Your task to perform on an android device: Open the Play Movies app and select the watchlist tab. Image 0: 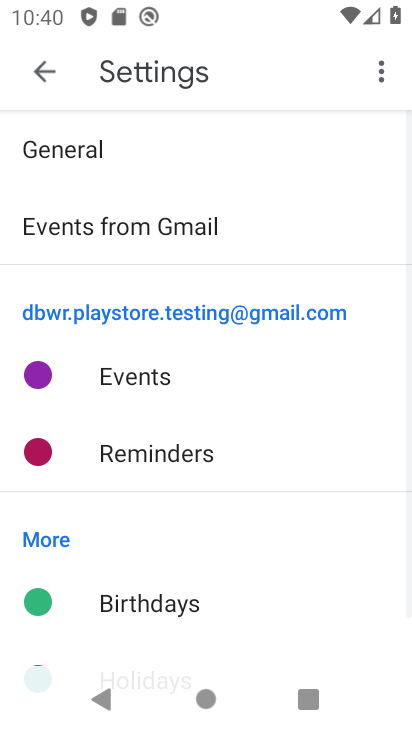
Step 0: press home button
Your task to perform on an android device: Open the Play Movies app and select the watchlist tab. Image 1: 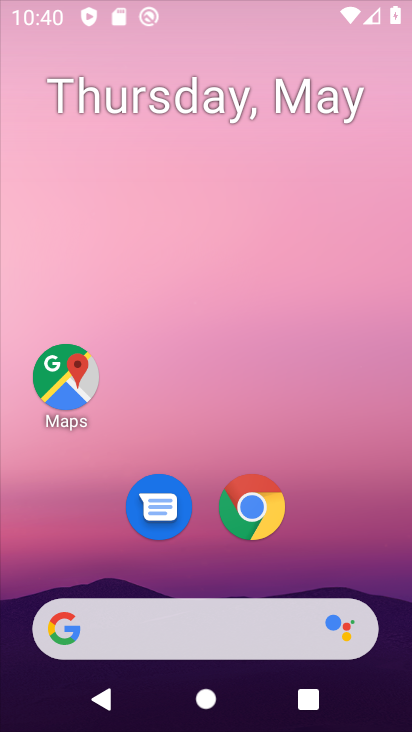
Step 1: drag from (242, 616) to (296, 259)
Your task to perform on an android device: Open the Play Movies app and select the watchlist tab. Image 2: 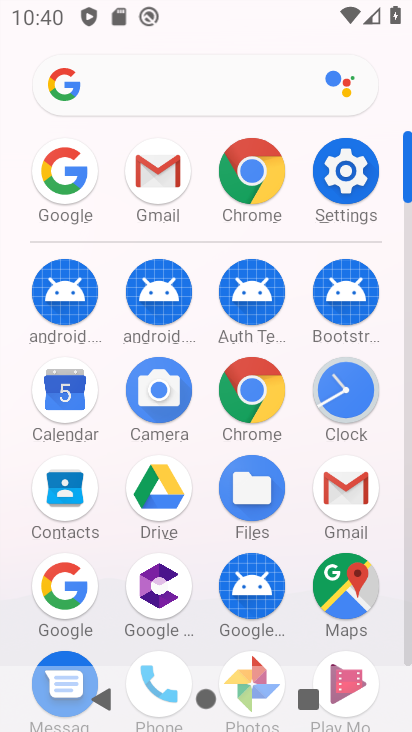
Step 2: drag from (320, 331) to (356, 104)
Your task to perform on an android device: Open the Play Movies app and select the watchlist tab. Image 3: 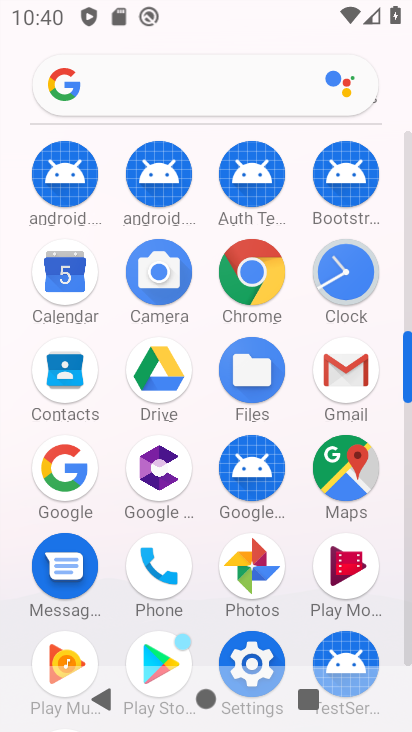
Step 3: click (349, 577)
Your task to perform on an android device: Open the Play Movies app and select the watchlist tab. Image 4: 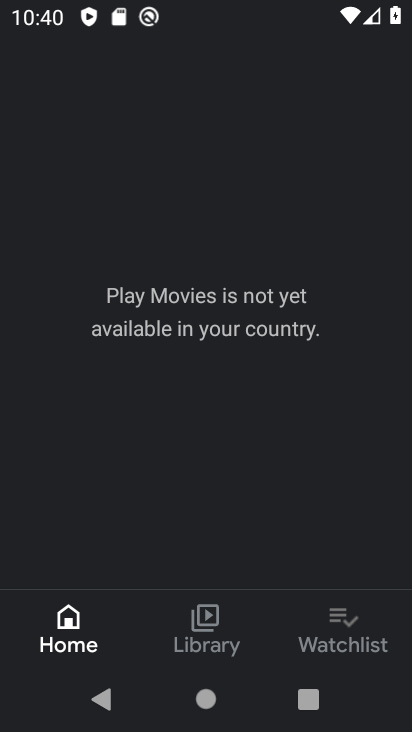
Step 4: click (357, 637)
Your task to perform on an android device: Open the Play Movies app and select the watchlist tab. Image 5: 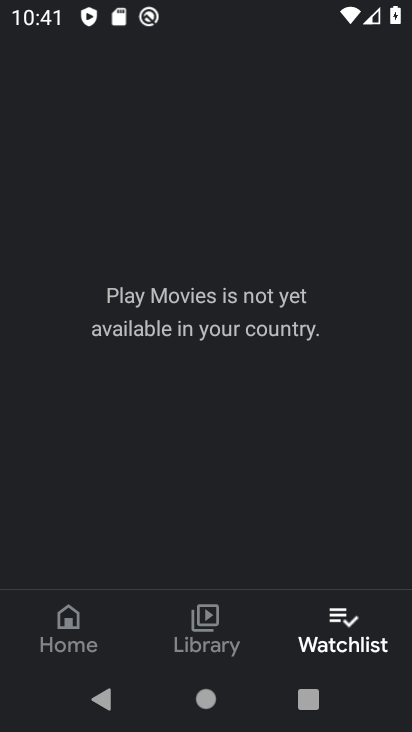
Step 5: task complete